Your task to perform on an android device: Is it going to rain tomorrow? Image 0: 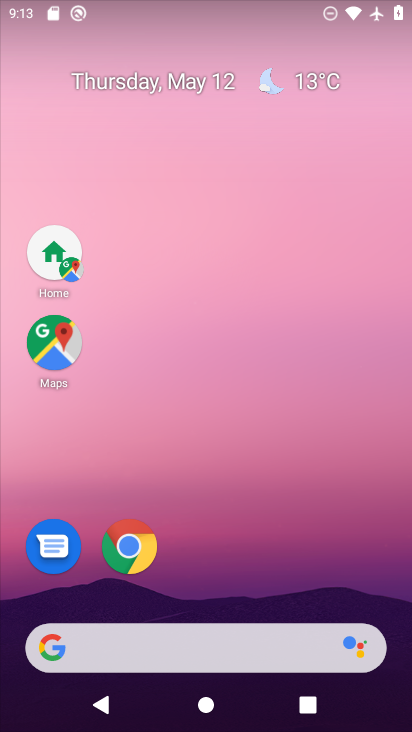
Step 0: click (313, 76)
Your task to perform on an android device: Is it going to rain tomorrow? Image 1: 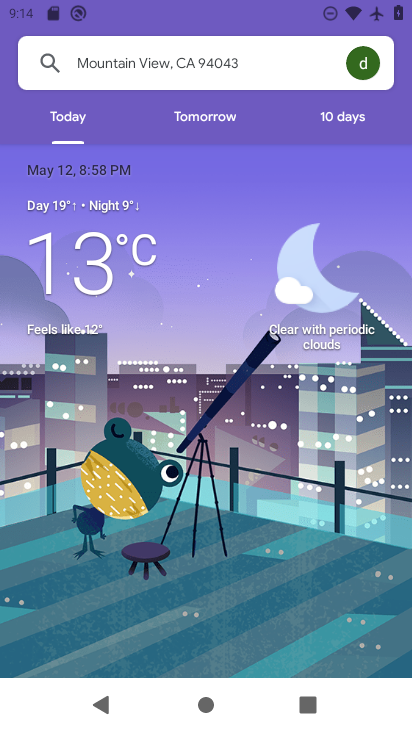
Step 1: click (199, 117)
Your task to perform on an android device: Is it going to rain tomorrow? Image 2: 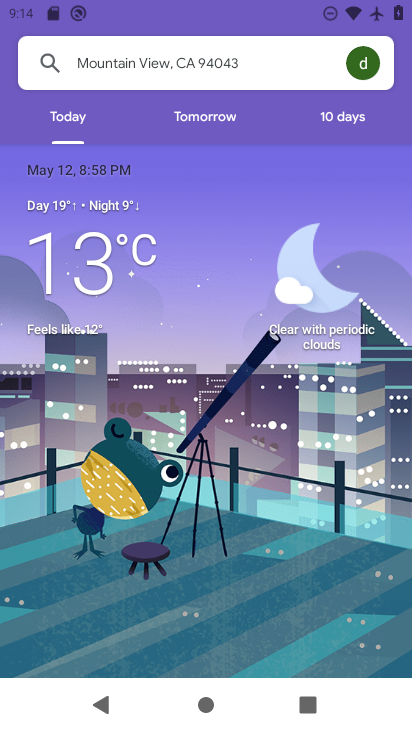
Step 2: click (198, 115)
Your task to perform on an android device: Is it going to rain tomorrow? Image 3: 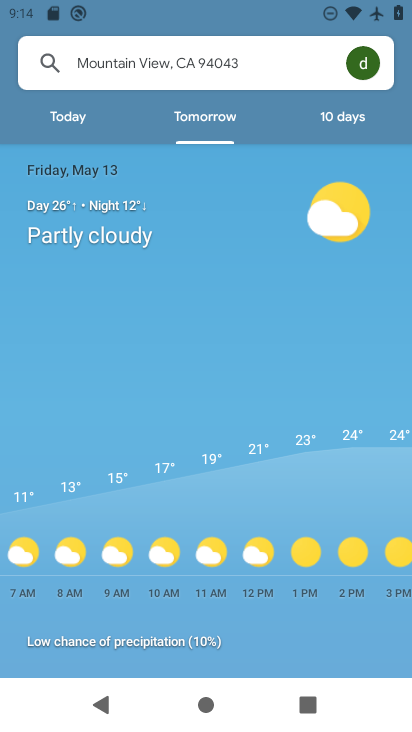
Step 3: task complete